Your task to perform on an android device: Go to internet settings Image 0: 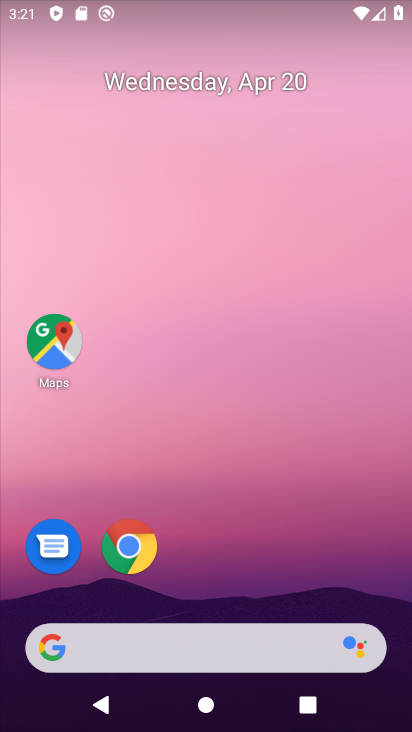
Step 0: drag from (206, 626) to (349, 61)
Your task to perform on an android device: Go to internet settings Image 1: 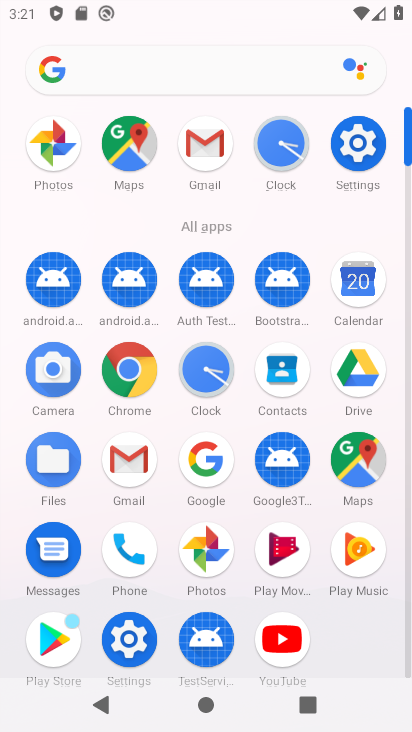
Step 1: click (130, 651)
Your task to perform on an android device: Go to internet settings Image 2: 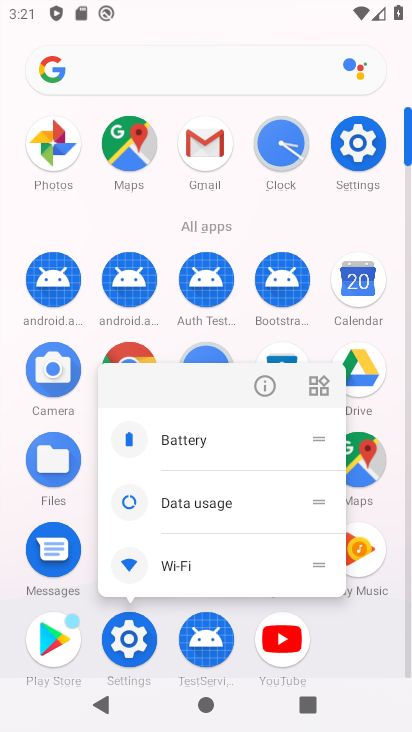
Step 2: click (131, 649)
Your task to perform on an android device: Go to internet settings Image 3: 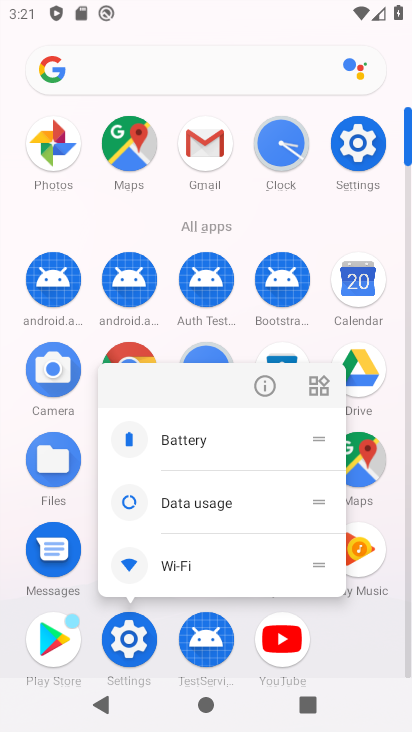
Step 3: click (130, 639)
Your task to perform on an android device: Go to internet settings Image 4: 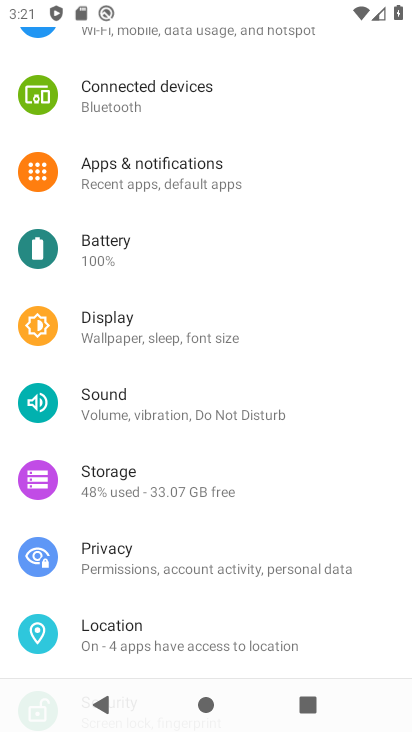
Step 4: drag from (315, 174) to (254, 439)
Your task to perform on an android device: Go to internet settings Image 5: 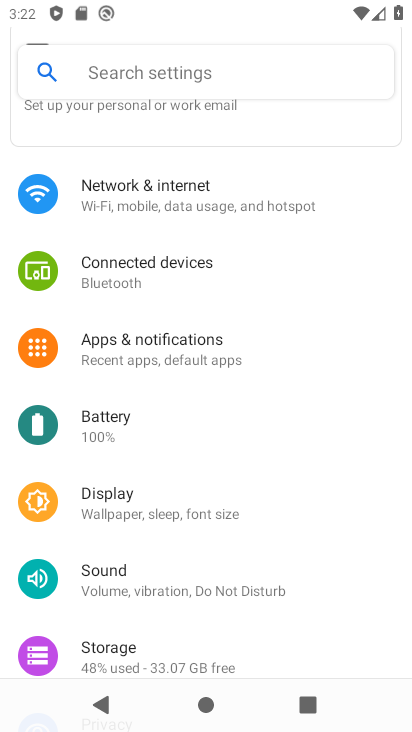
Step 5: click (266, 200)
Your task to perform on an android device: Go to internet settings Image 6: 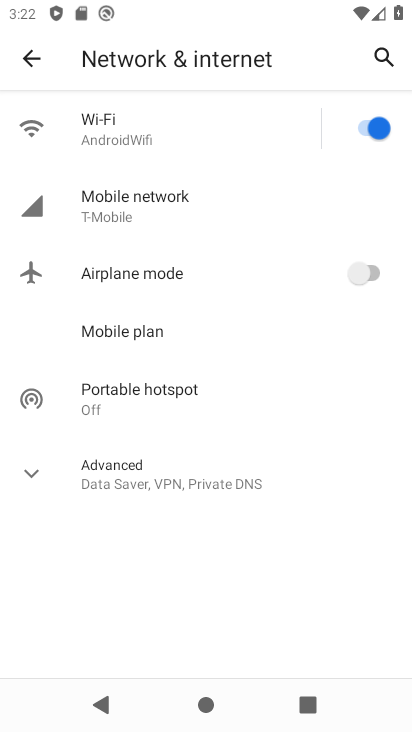
Step 6: task complete